Your task to perform on an android device: Open the phone app and click the voicemail tab. Image 0: 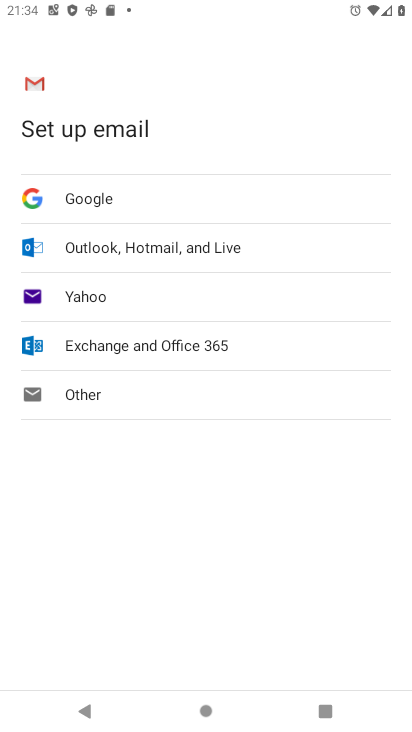
Step 0: press home button
Your task to perform on an android device: Open the phone app and click the voicemail tab. Image 1: 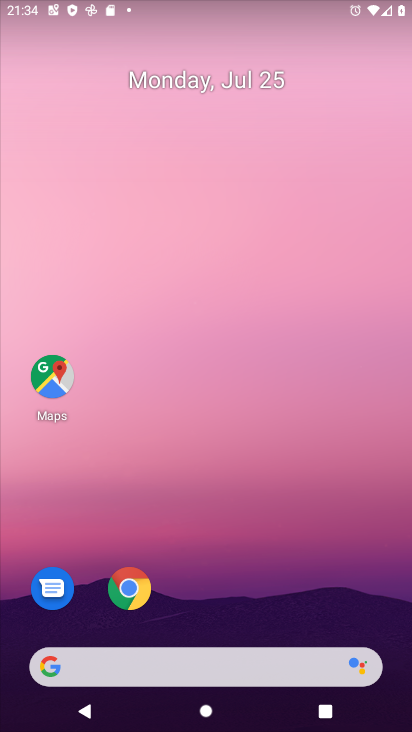
Step 1: drag from (178, 639) to (221, 229)
Your task to perform on an android device: Open the phone app and click the voicemail tab. Image 2: 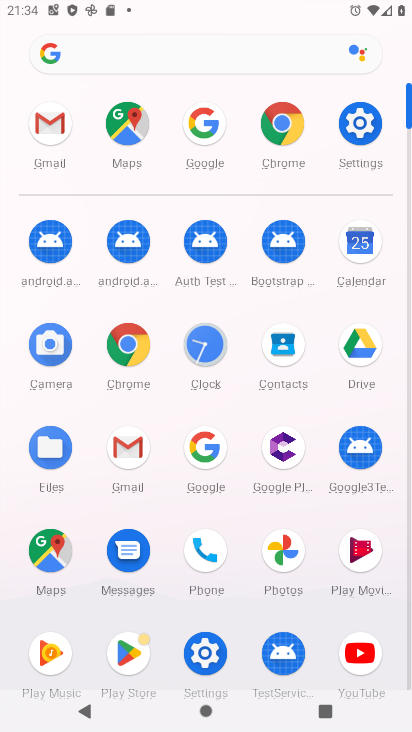
Step 2: click (209, 557)
Your task to perform on an android device: Open the phone app and click the voicemail tab. Image 3: 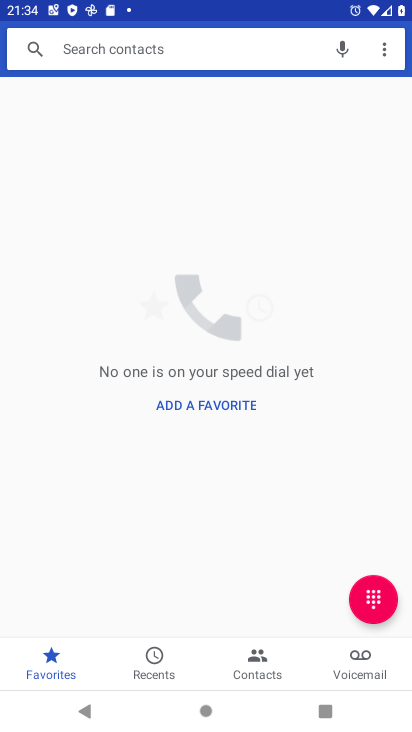
Step 3: click (345, 662)
Your task to perform on an android device: Open the phone app and click the voicemail tab. Image 4: 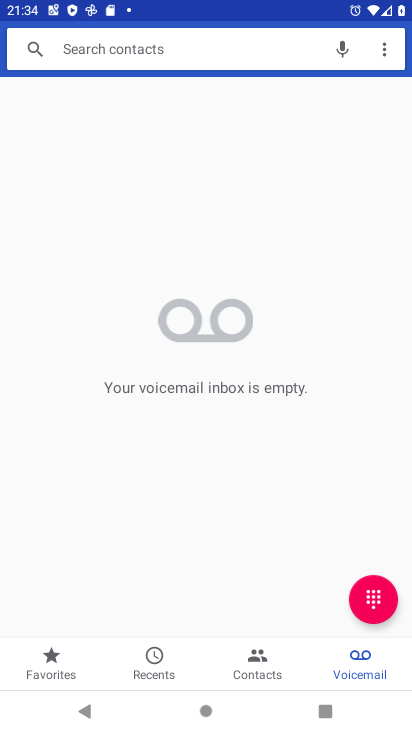
Step 4: task complete